Your task to perform on an android device: Go to display settings Image 0: 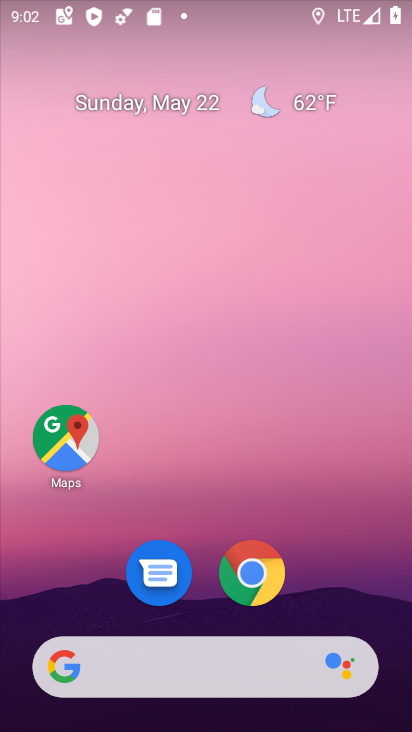
Step 0: drag from (246, 626) to (352, 17)
Your task to perform on an android device: Go to display settings Image 1: 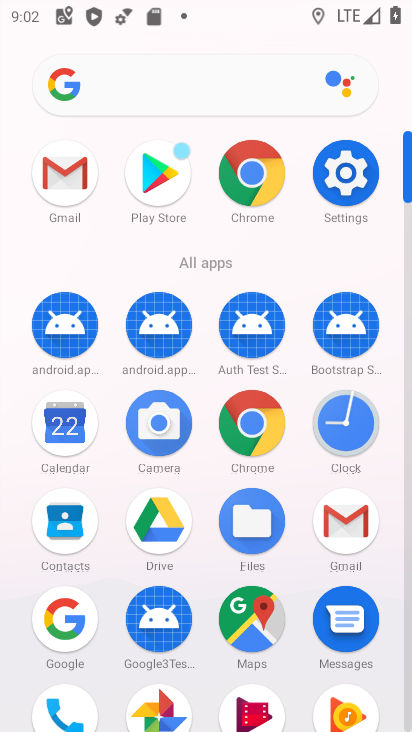
Step 1: click (366, 423)
Your task to perform on an android device: Go to display settings Image 2: 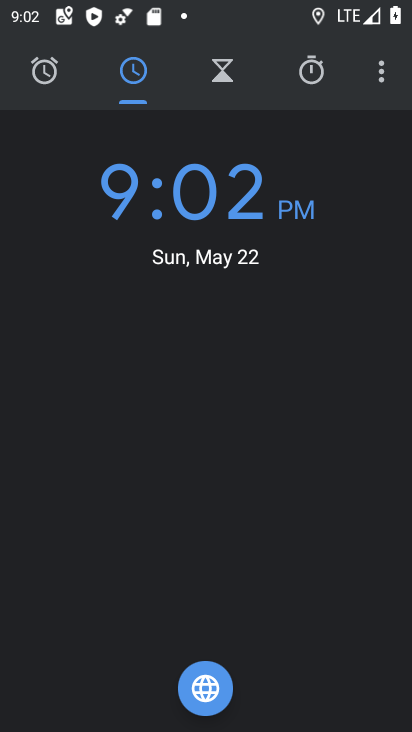
Step 2: click (390, 70)
Your task to perform on an android device: Go to display settings Image 3: 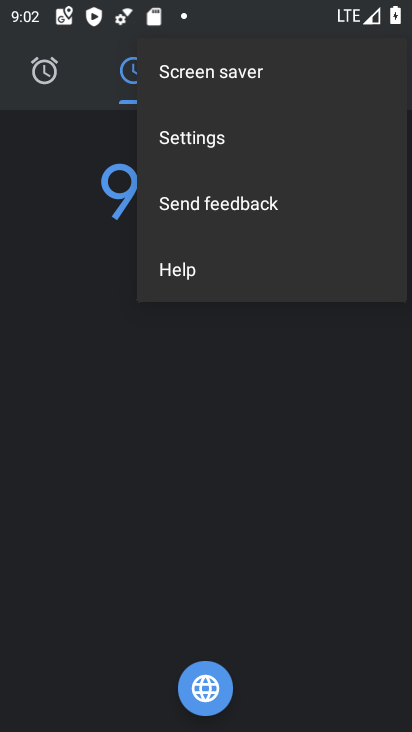
Step 3: press home button
Your task to perform on an android device: Go to display settings Image 4: 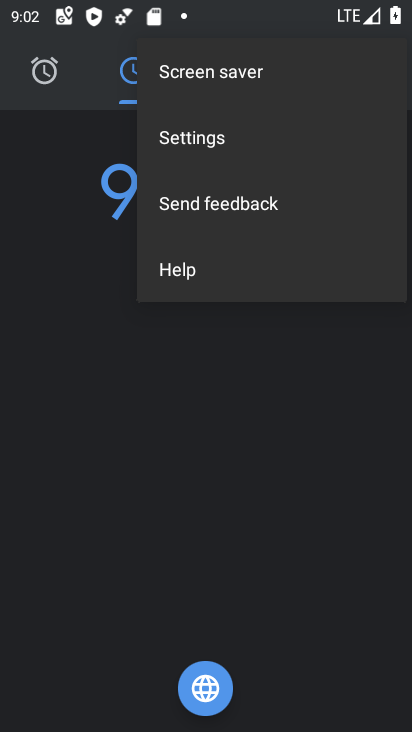
Step 4: press home button
Your task to perform on an android device: Go to display settings Image 5: 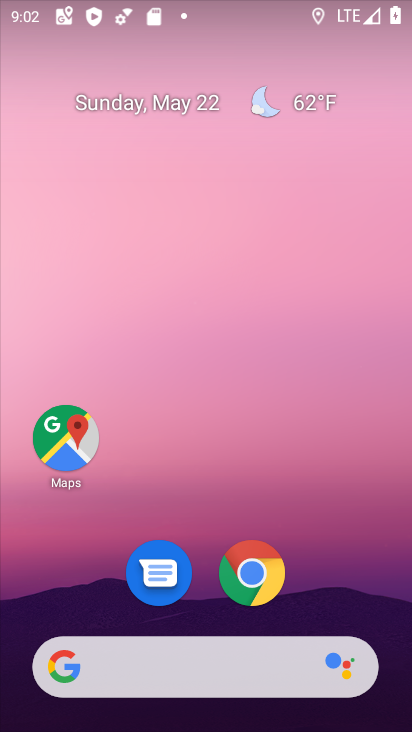
Step 5: drag from (306, 642) to (251, 7)
Your task to perform on an android device: Go to display settings Image 6: 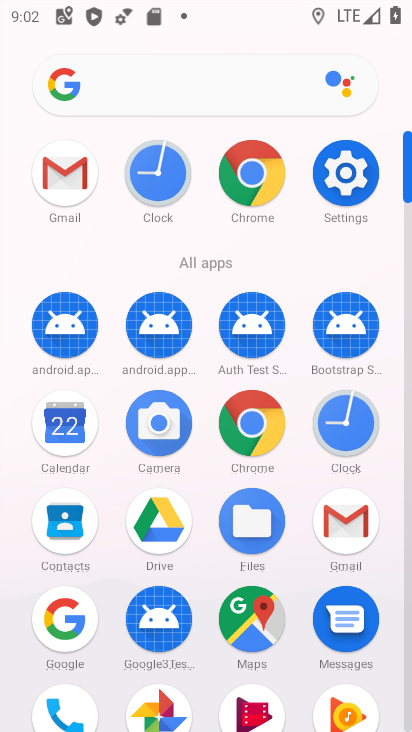
Step 6: click (340, 182)
Your task to perform on an android device: Go to display settings Image 7: 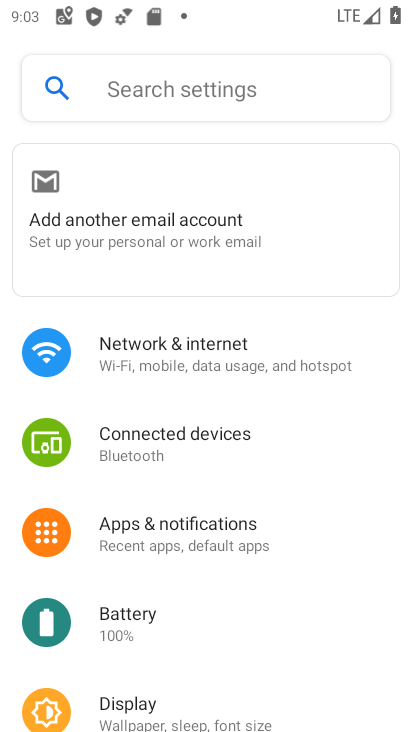
Step 7: click (170, 699)
Your task to perform on an android device: Go to display settings Image 8: 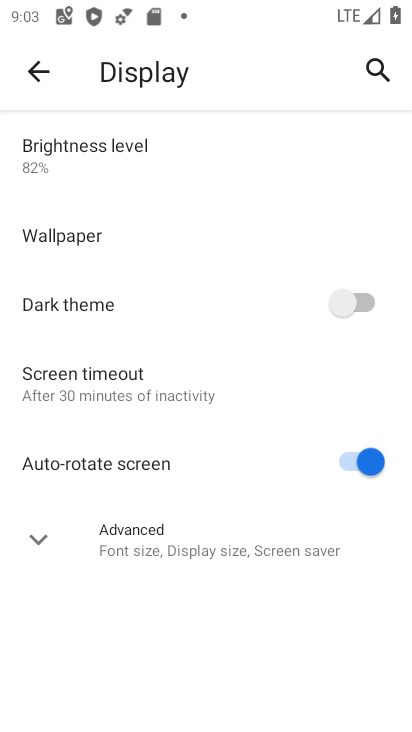
Step 8: task complete